Your task to perform on an android device: turn off data saver in the chrome app Image 0: 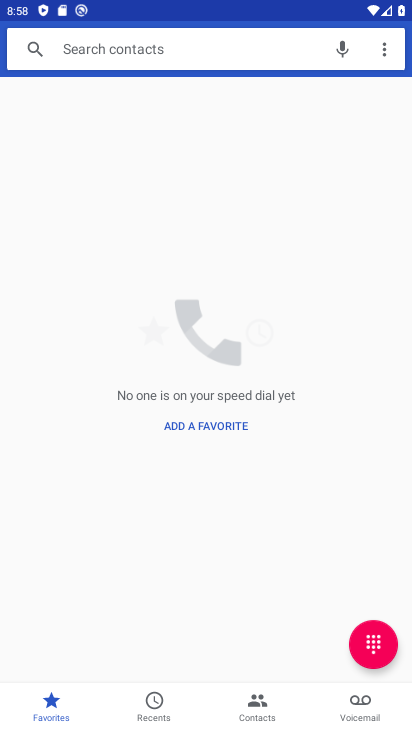
Step 0: press home button
Your task to perform on an android device: turn off data saver in the chrome app Image 1: 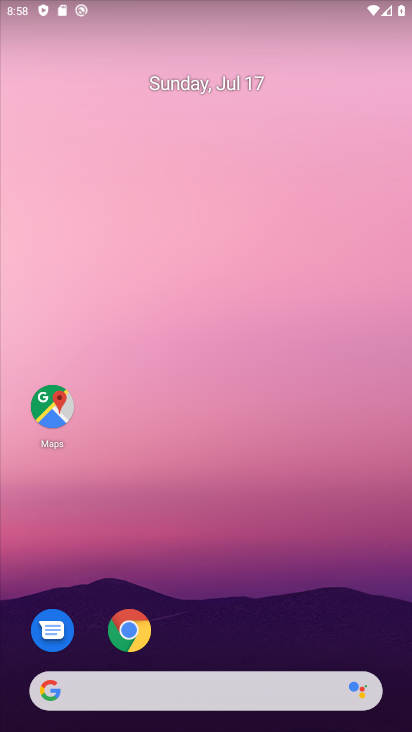
Step 1: drag from (180, 632) to (168, 251)
Your task to perform on an android device: turn off data saver in the chrome app Image 2: 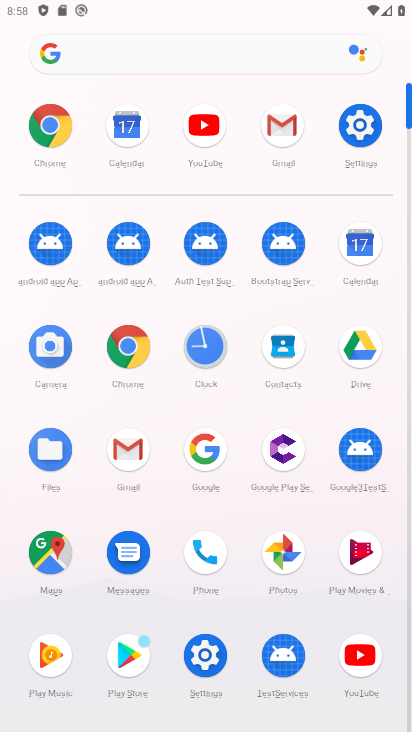
Step 2: click (206, 675)
Your task to perform on an android device: turn off data saver in the chrome app Image 3: 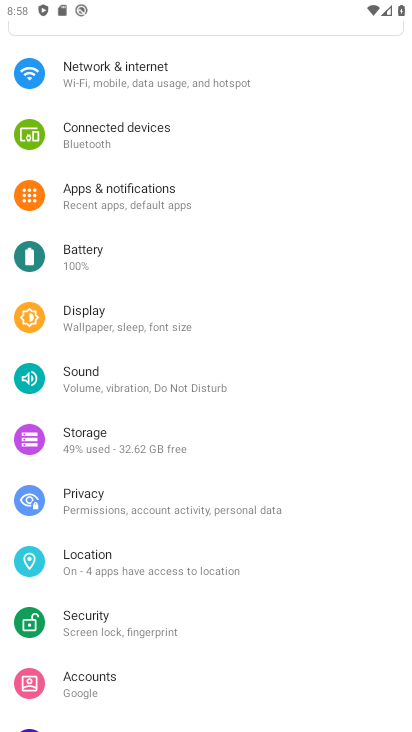
Step 3: click (126, 82)
Your task to perform on an android device: turn off data saver in the chrome app Image 4: 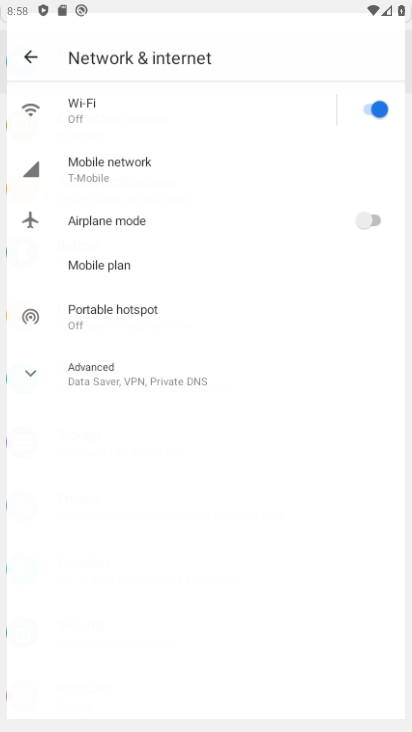
Step 4: task complete